Your task to perform on an android device: Open notification settings Image 0: 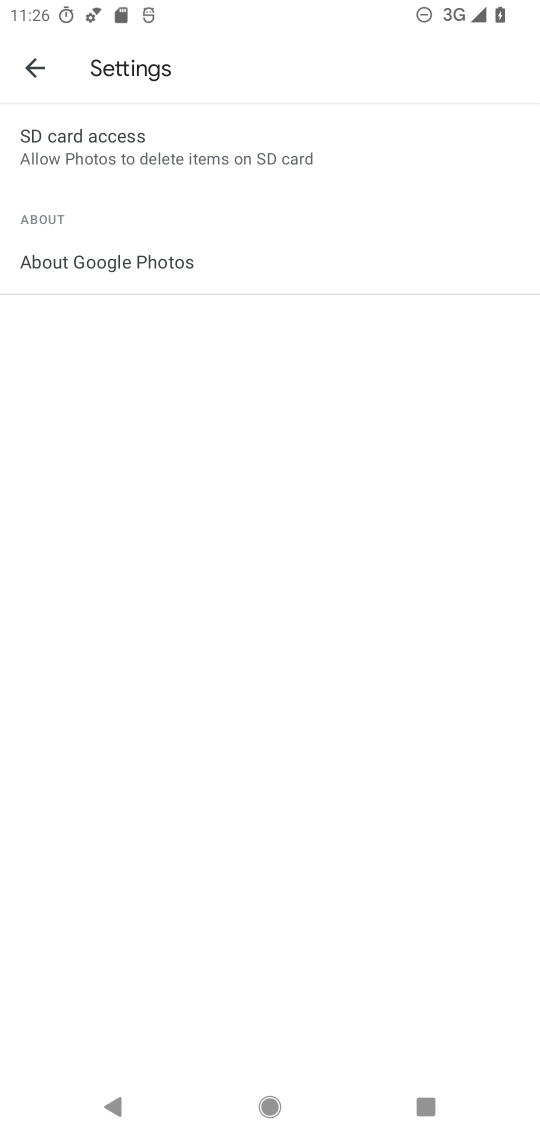
Step 0: press home button
Your task to perform on an android device: Open notification settings Image 1: 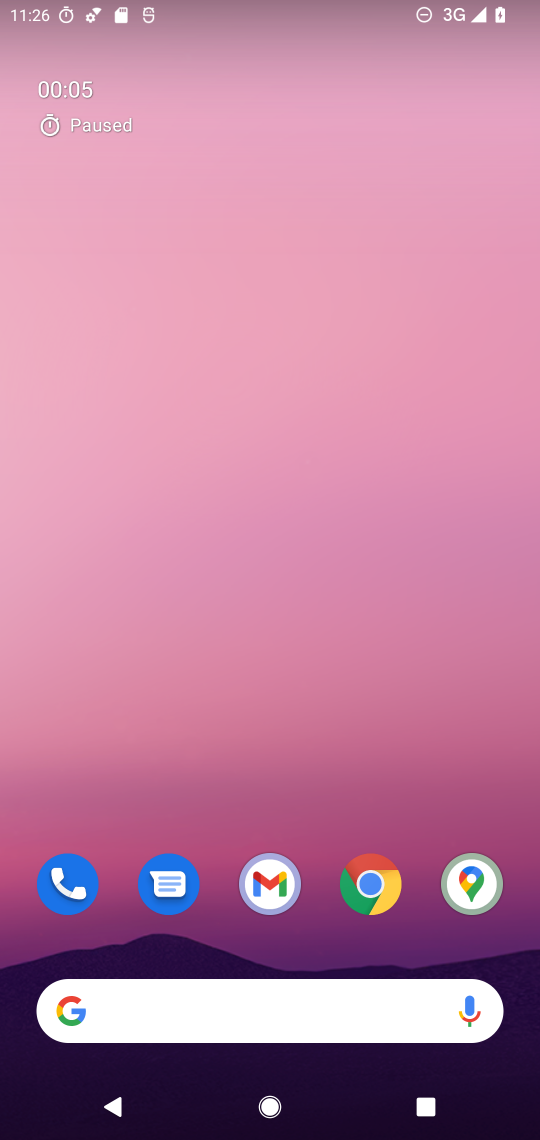
Step 1: click (230, 182)
Your task to perform on an android device: Open notification settings Image 2: 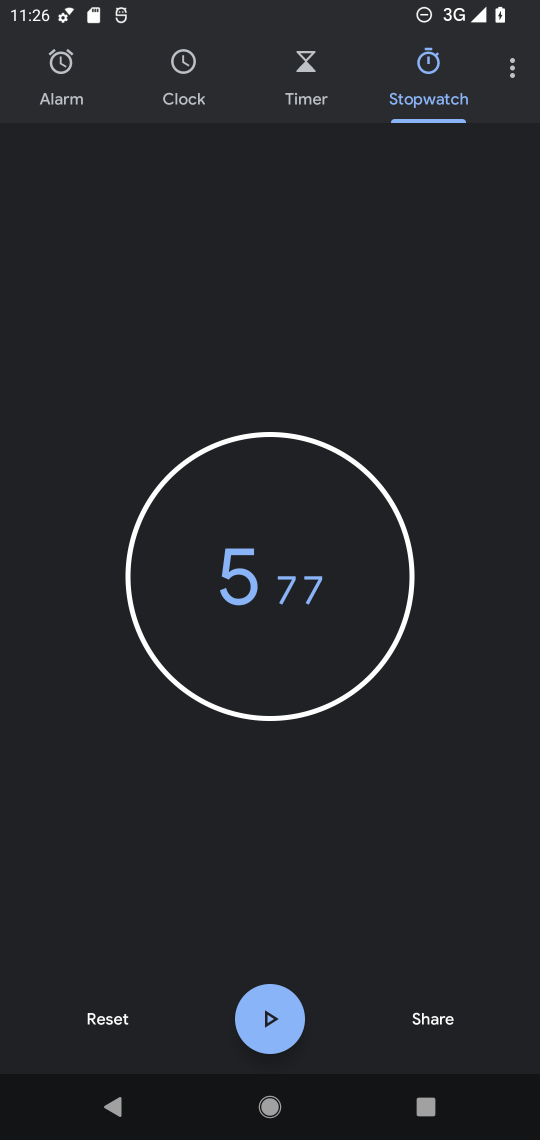
Step 2: press home button
Your task to perform on an android device: Open notification settings Image 3: 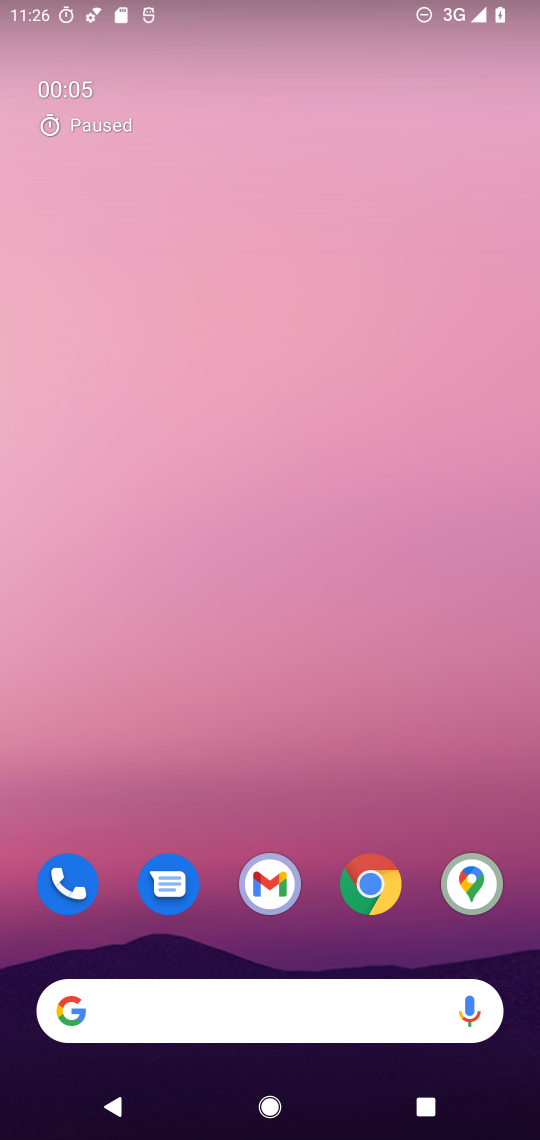
Step 3: drag from (241, 927) to (272, 245)
Your task to perform on an android device: Open notification settings Image 4: 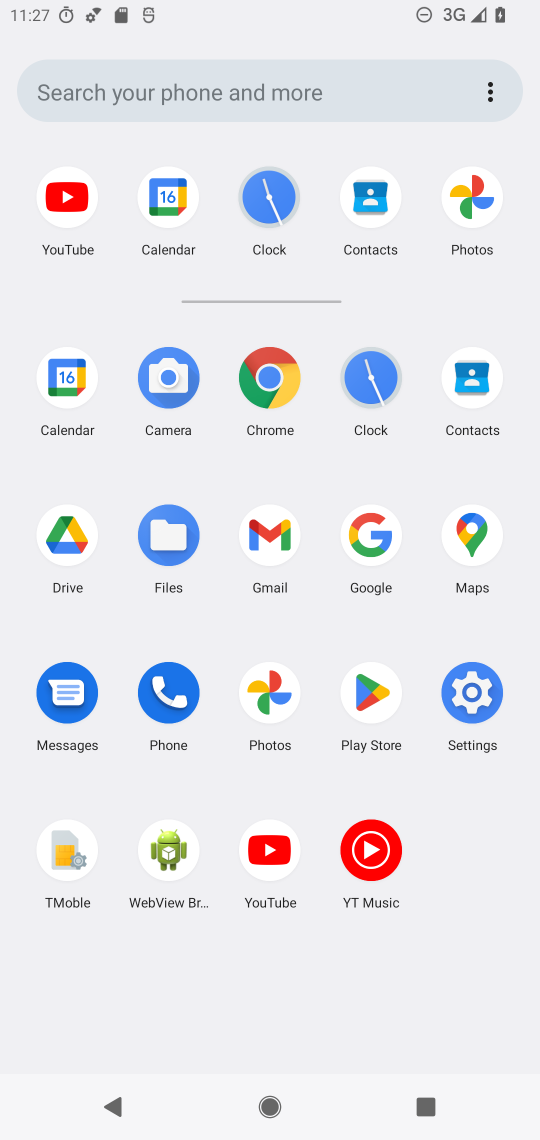
Step 4: click (472, 700)
Your task to perform on an android device: Open notification settings Image 5: 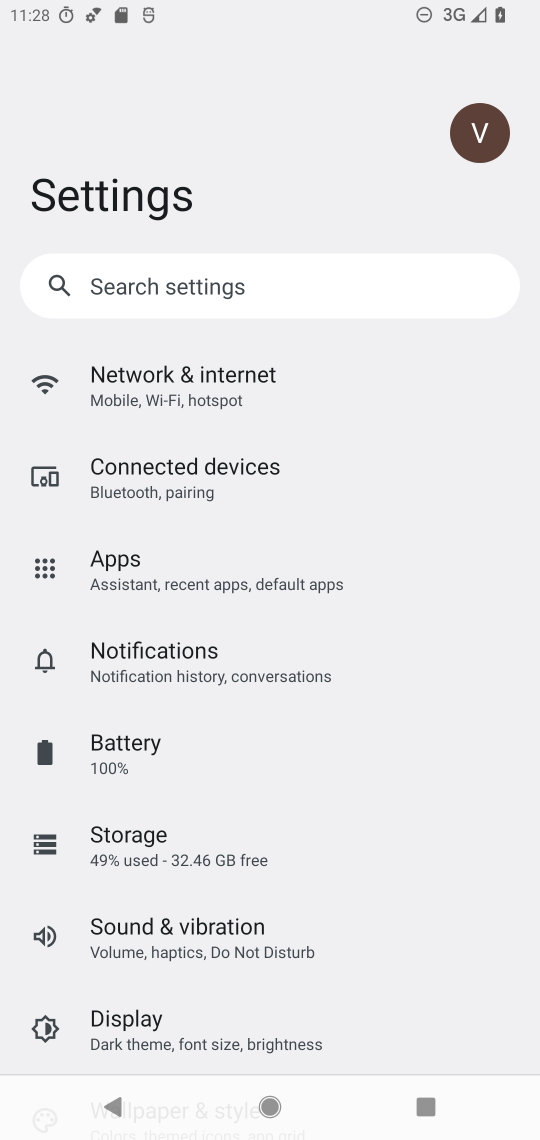
Step 5: click (190, 672)
Your task to perform on an android device: Open notification settings Image 6: 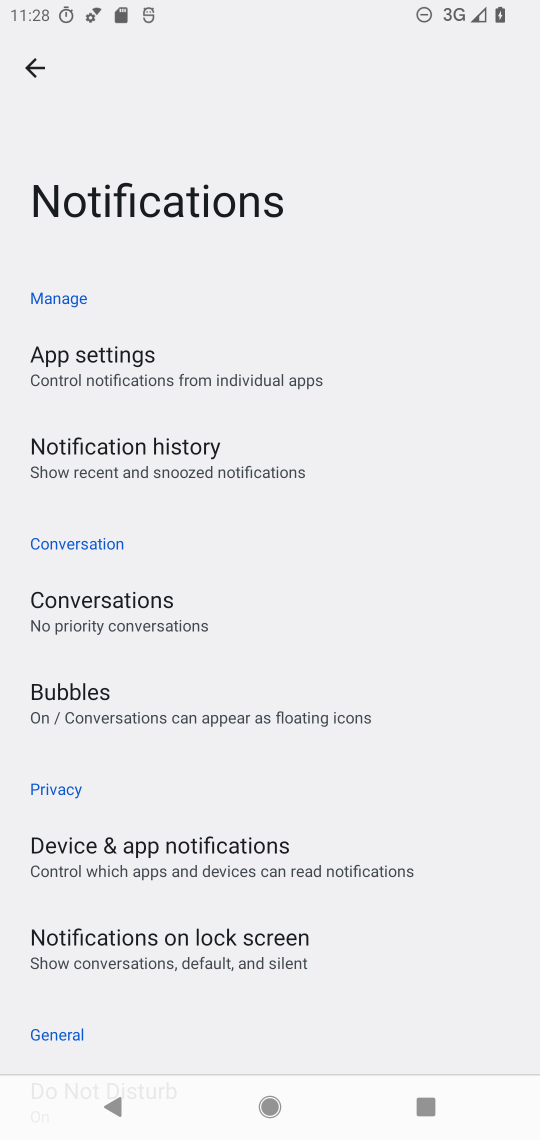
Step 6: task complete